Your task to perform on an android device: see tabs open on other devices in the chrome app Image 0: 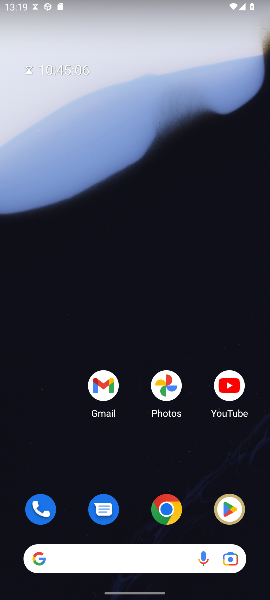
Step 0: press home button
Your task to perform on an android device: see tabs open on other devices in the chrome app Image 1: 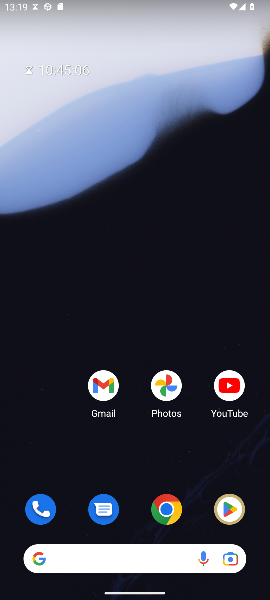
Step 1: click (169, 514)
Your task to perform on an android device: see tabs open on other devices in the chrome app Image 2: 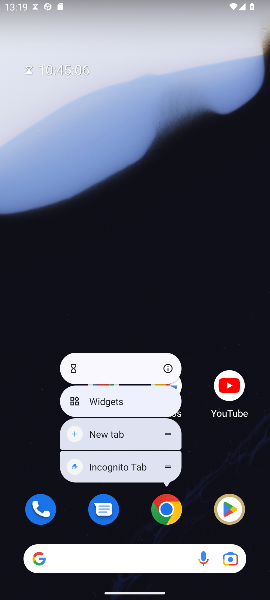
Step 2: click (169, 514)
Your task to perform on an android device: see tabs open on other devices in the chrome app Image 3: 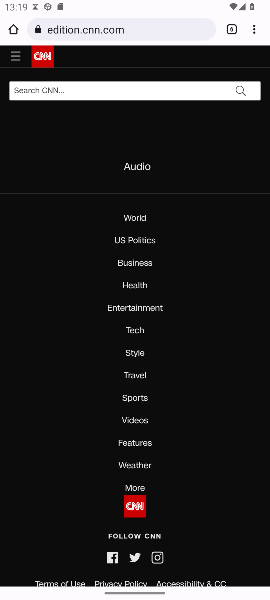
Step 3: task complete